Your task to perform on an android device: Turn on the flashlight Image 0: 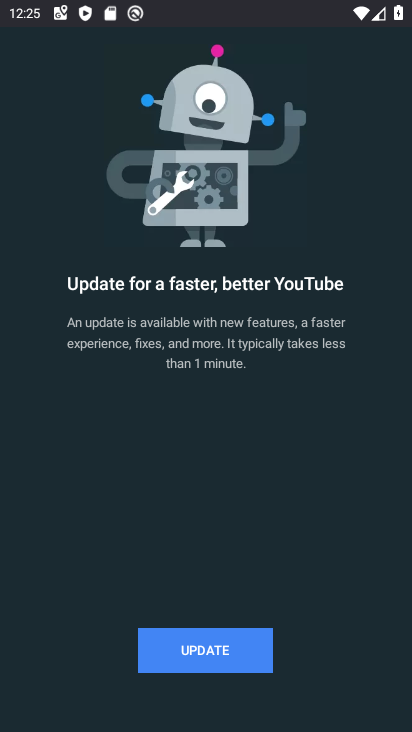
Step 0: press home button
Your task to perform on an android device: Turn on the flashlight Image 1: 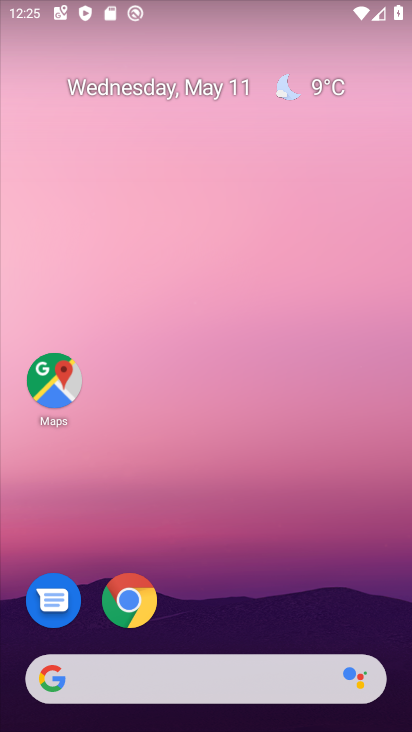
Step 1: task complete